Your task to perform on an android device: Set the phone to "Do not disturb". Image 0: 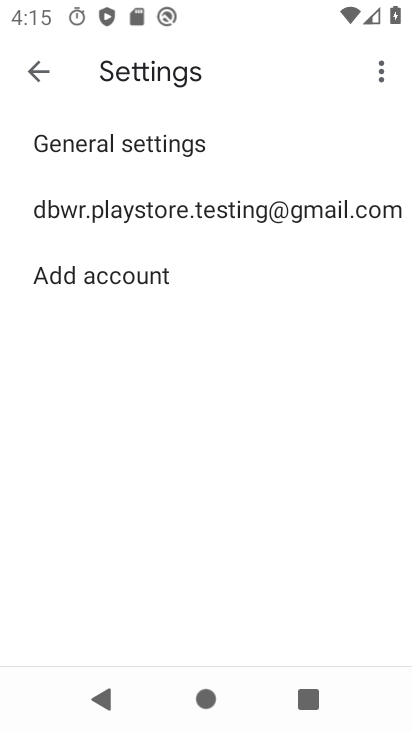
Step 0: drag from (189, 1) to (213, 521)
Your task to perform on an android device: Set the phone to "Do not disturb". Image 1: 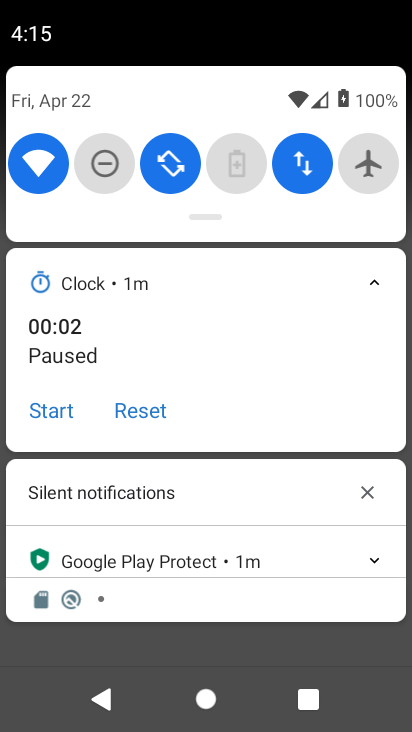
Step 1: click (108, 168)
Your task to perform on an android device: Set the phone to "Do not disturb". Image 2: 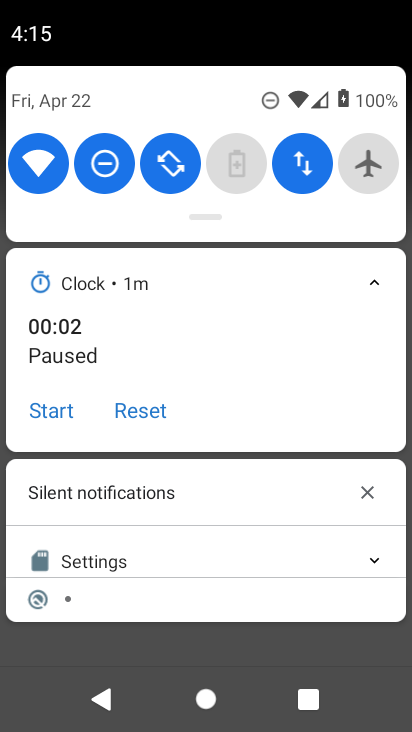
Step 2: task complete